Your task to perform on an android device: Open display settings Image 0: 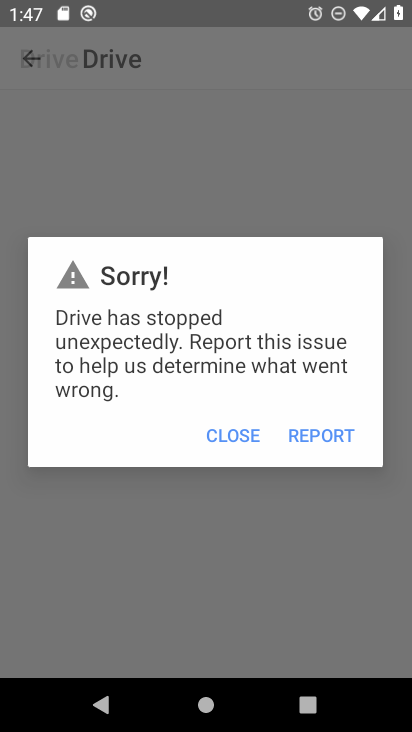
Step 0: drag from (263, 642) to (303, 137)
Your task to perform on an android device: Open display settings Image 1: 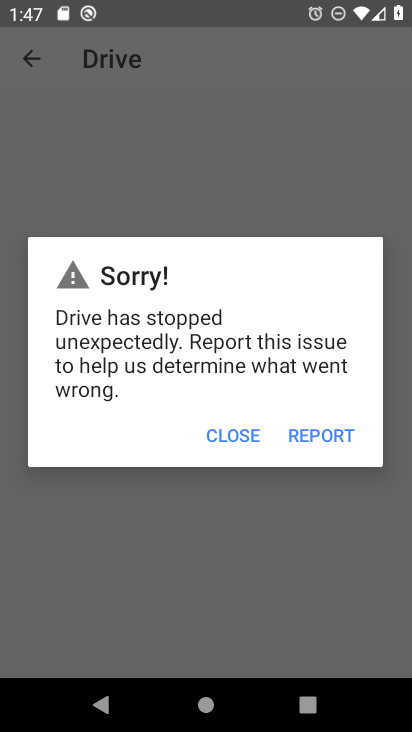
Step 1: press home button
Your task to perform on an android device: Open display settings Image 2: 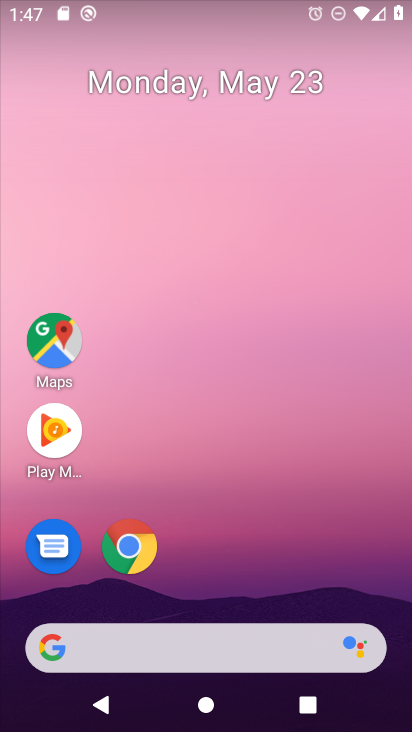
Step 2: drag from (244, 642) to (263, 244)
Your task to perform on an android device: Open display settings Image 3: 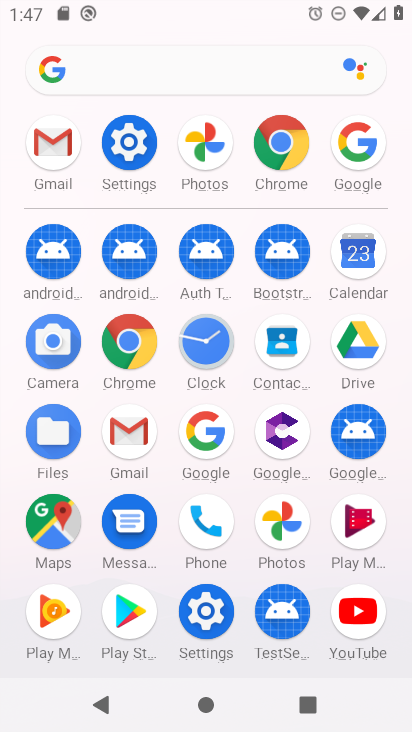
Step 3: click (144, 162)
Your task to perform on an android device: Open display settings Image 4: 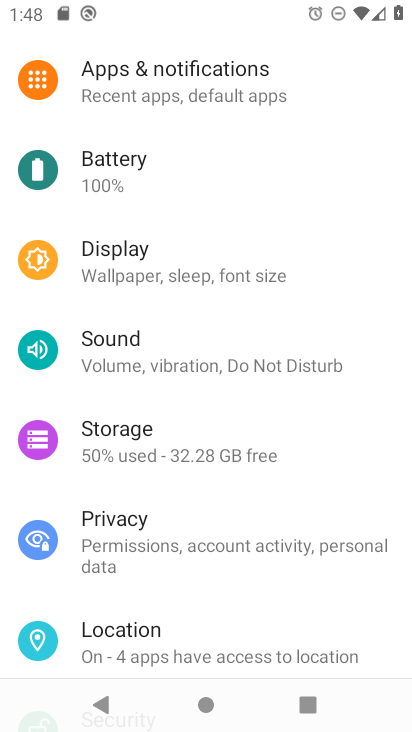
Step 4: click (153, 267)
Your task to perform on an android device: Open display settings Image 5: 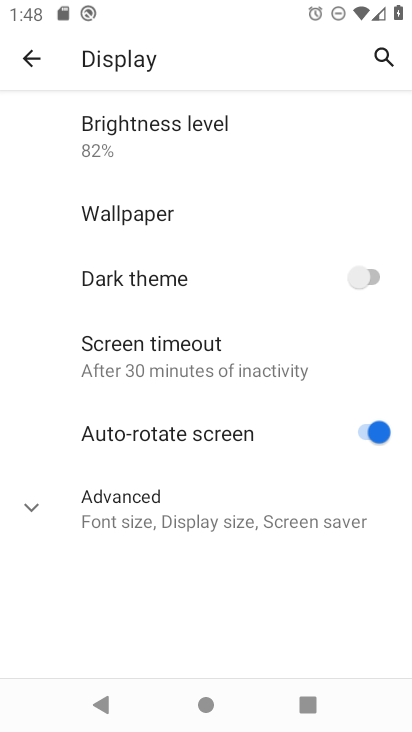
Step 5: task complete